Your task to perform on an android device: toggle pop-ups in chrome Image 0: 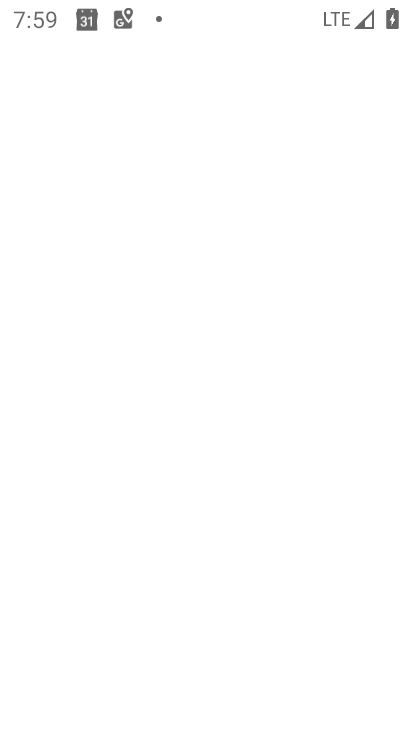
Step 0: press home button
Your task to perform on an android device: toggle pop-ups in chrome Image 1: 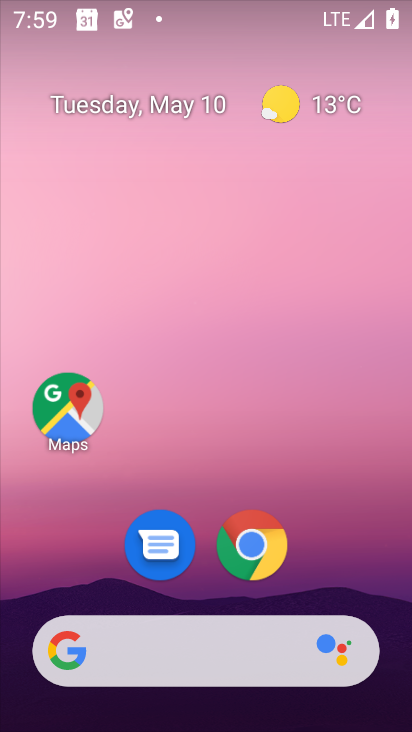
Step 1: click (251, 537)
Your task to perform on an android device: toggle pop-ups in chrome Image 2: 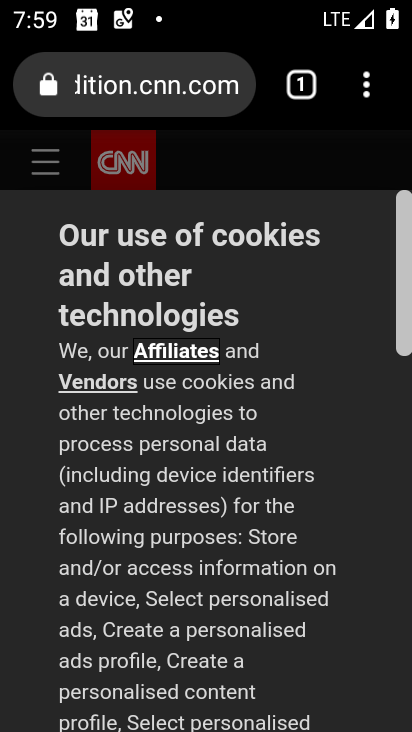
Step 2: drag from (198, 599) to (254, 259)
Your task to perform on an android device: toggle pop-ups in chrome Image 3: 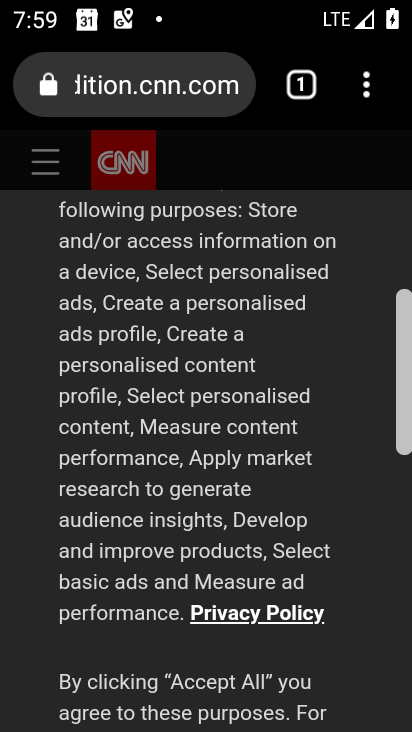
Step 3: drag from (214, 646) to (257, 243)
Your task to perform on an android device: toggle pop-ups in chrome Image 4: 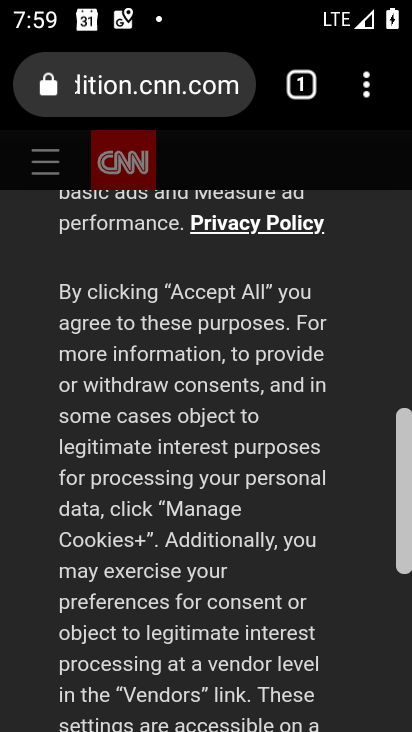
Step 4: drag from (205, 657) to (249, 323)
Your task to perform on an android device: toggle pop-ups in chrome Image 5: 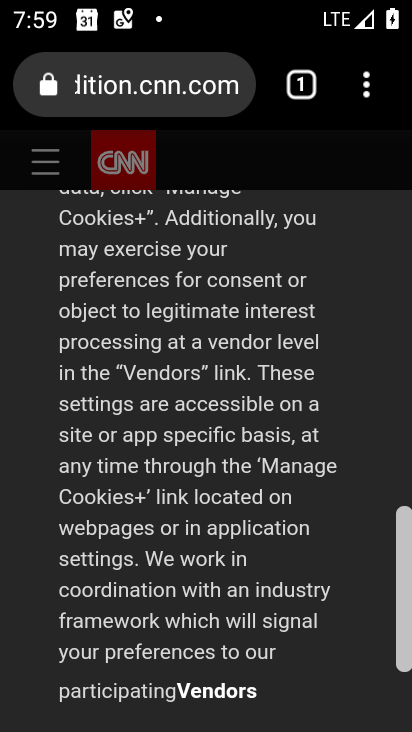
Step 5: drag from (206, 659) to (252, 306)
Your task to perform on an android device: toggle pop-ups in chrome Image 6: 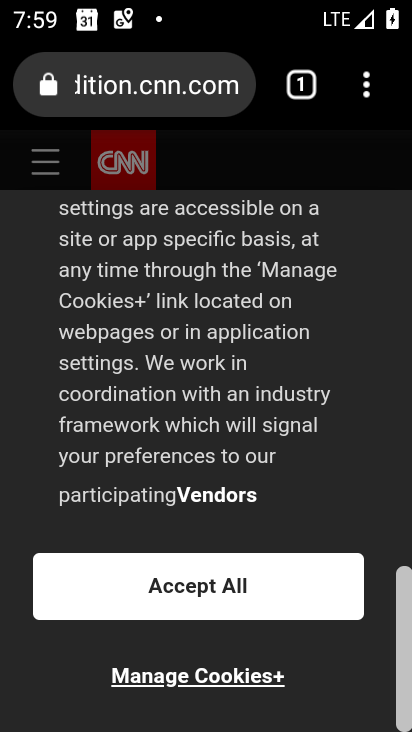
Step 6: click (200, 594)
Your task to perform on an android device: toggle pop-ups in chrome Image 7: 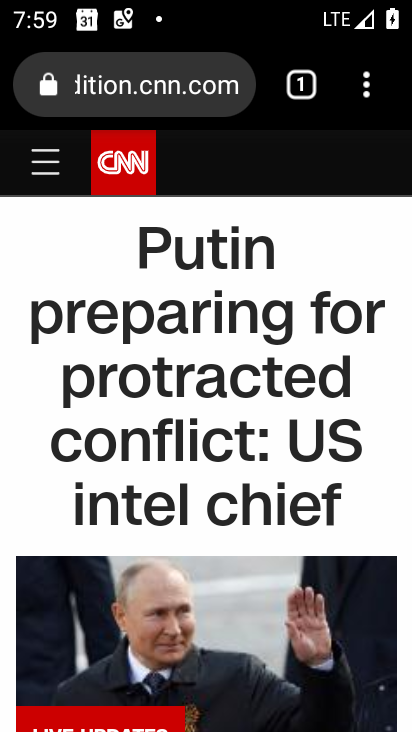
Step 7: click (368, 89)
Your task to perform on an android device: toggle pop-ups in chrome Image 8: 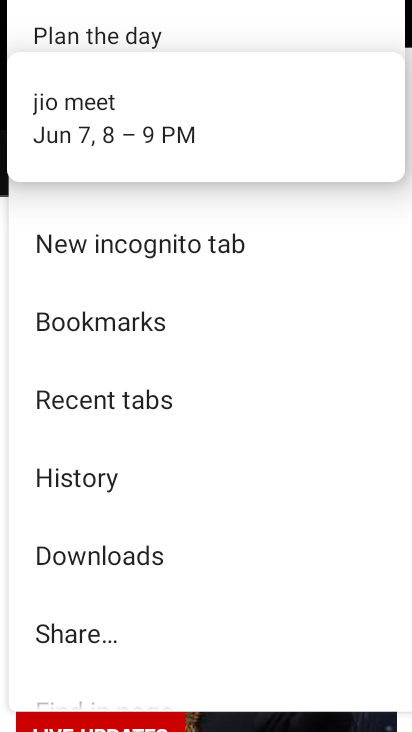
Step 8: drag from (135, 624) to (166, 207)
Your task to perform on an android device: toggle pop-ups in chrome Image 9: 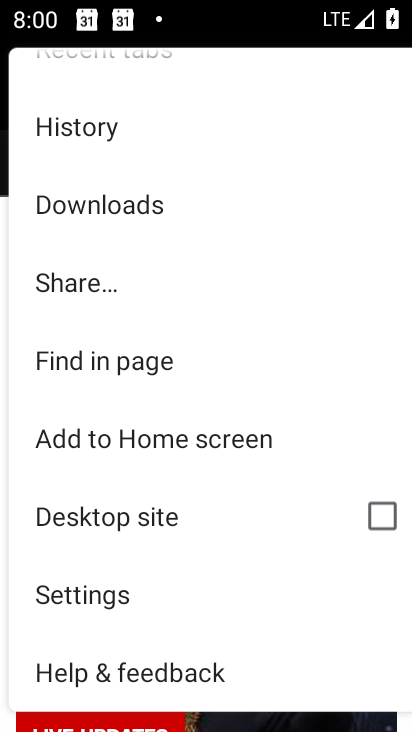
Step 9: click (137, 595)
Your task to perform on an android device: toggle pop-ups in chrome Image 10: 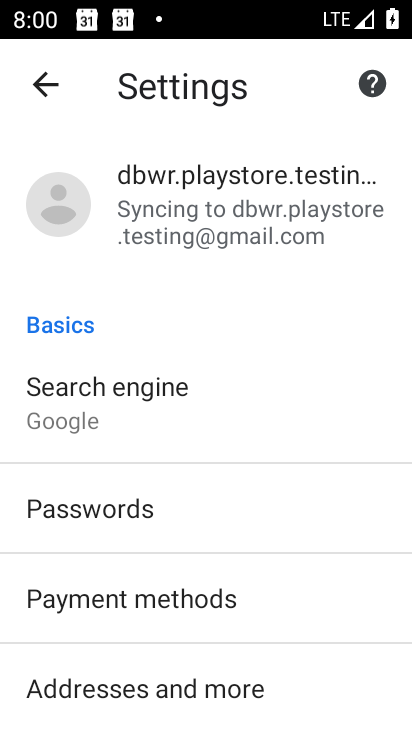
Step 10: drag from (284, 682) to (286, 298)
Your task to perform on an android device: toggle pop-ups in chrome Image 11: 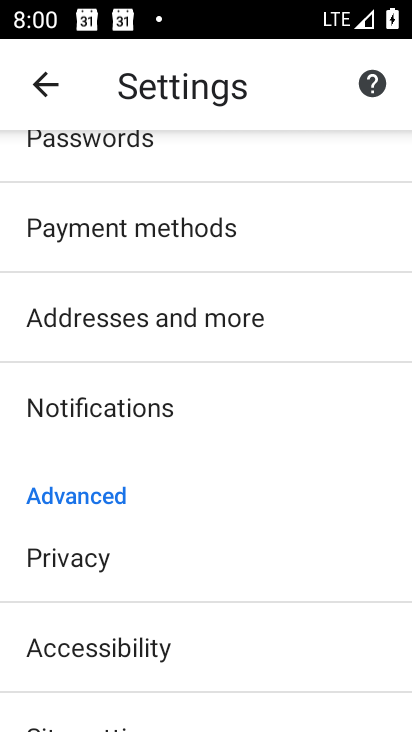
Step 11: drag from (191, 608) to (179, 231)
Your task to perform on an android device: toggle pop-ups in chrome Image 12: 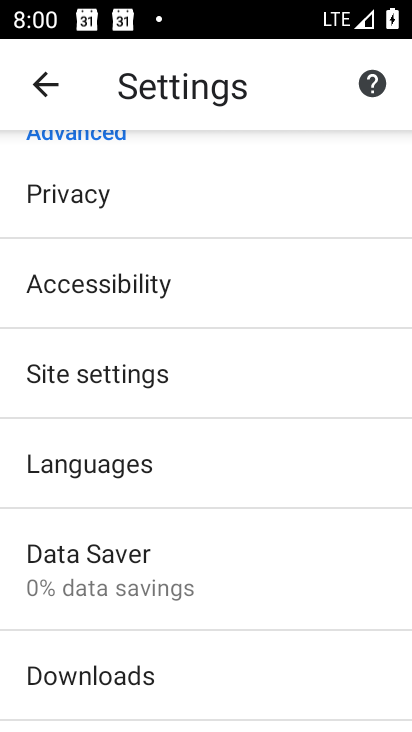
Step 12: click (148, 378)
Your task to perform on an android device: toggle pop-ups in chrome Image 13: 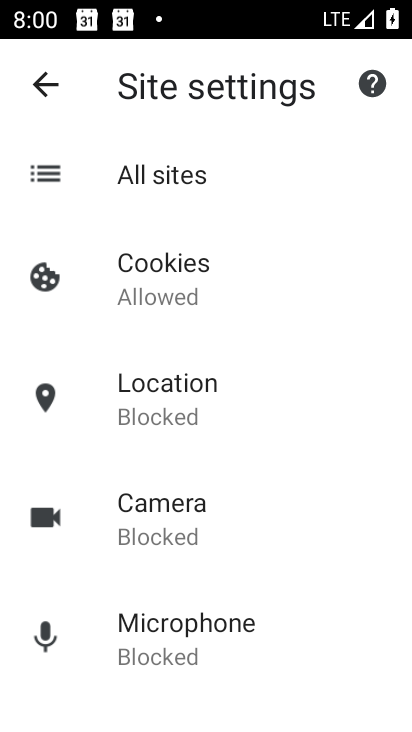
Step 13: drag from (225, 671) to (221, 299)
Your task to perform on an android device: toggle pop-ups in chrome Image 14: 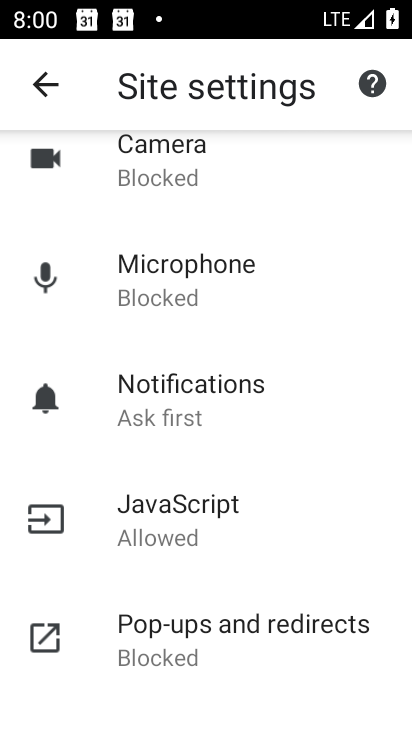
Step 14: drag from (178, 222) to (179, 144)
Your task to perform on an android device: toggle pop-ups in chrome Image 15: 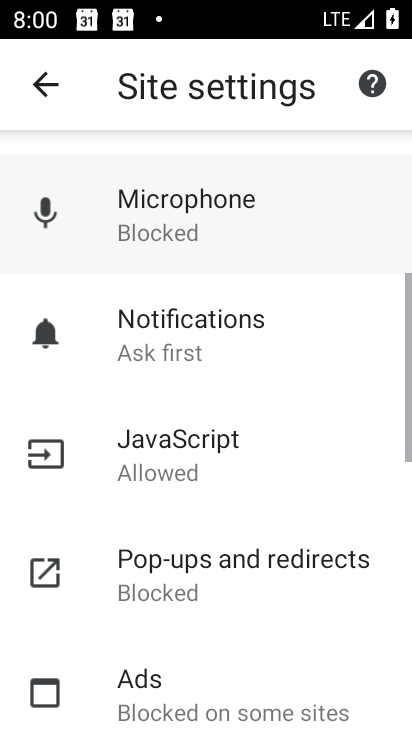
Step 15: click (149, 157)
Your task to perform on an android device: toggle pop-ups in chrome Image 16: 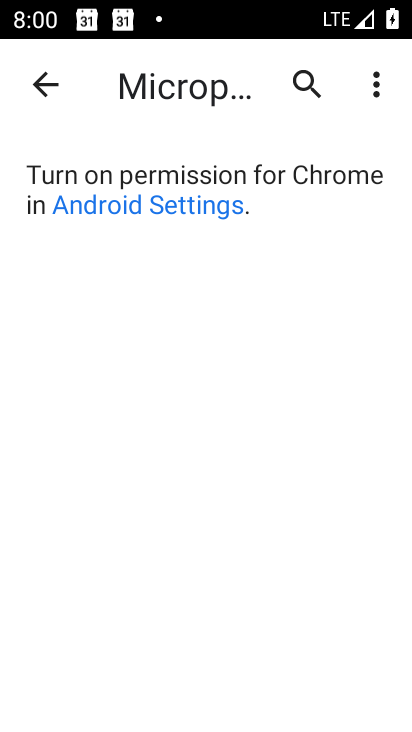
Step 16: click (43, 92)
Your task to perform on an android device: toggle pop-ups in chrome Image 17: 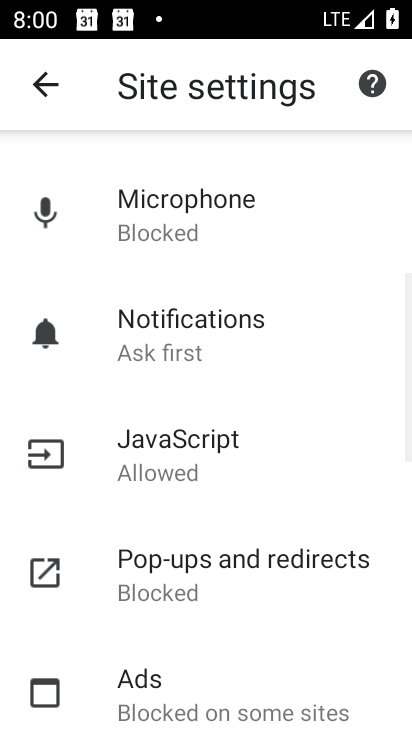
Step 17: click (97, 556)
Your task to perform on an android device: toggle pop-ups in chrome Image 18: 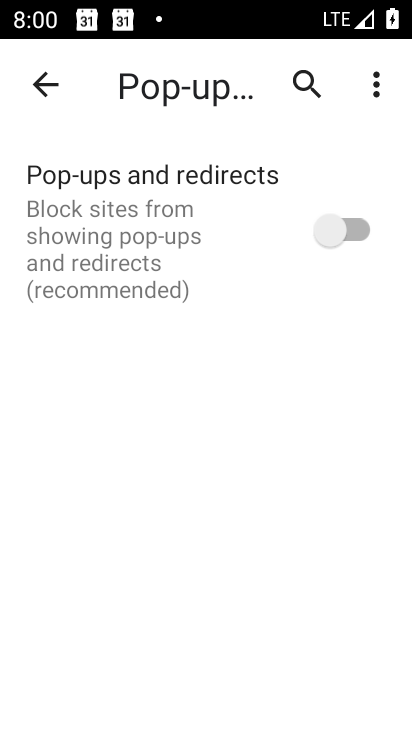
Step 18: click (335, 219)
Your task to perform on an android device: toggle pop-ups in chrome Image 19: 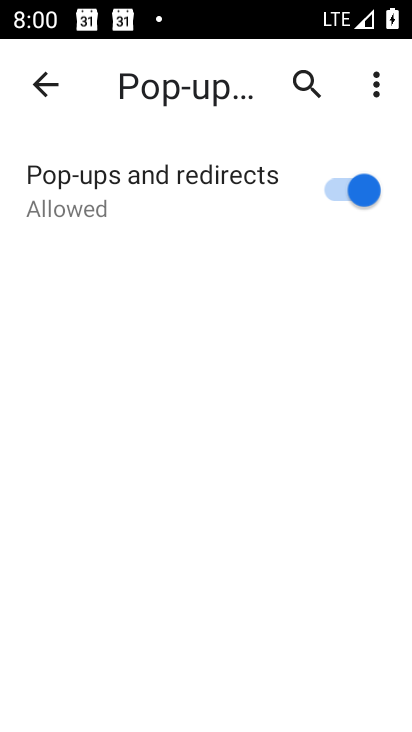
Step 19: task complete